Your task to perform on an android device: Go to Reddit.com Image 0: 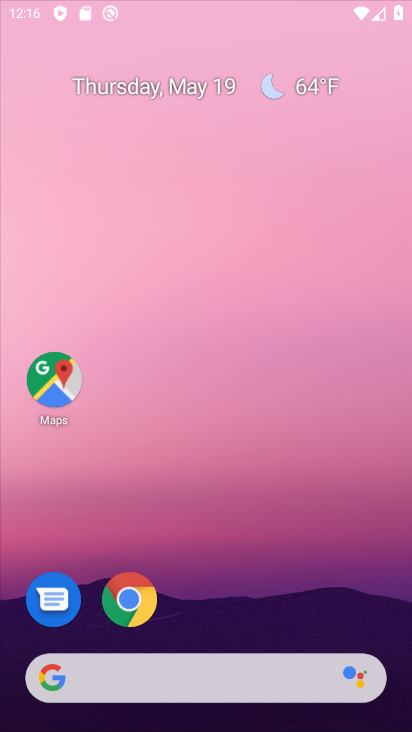
Step 0: click (197, 58)
Your task to perform on an android device: Go to Reddit.com Image 1: 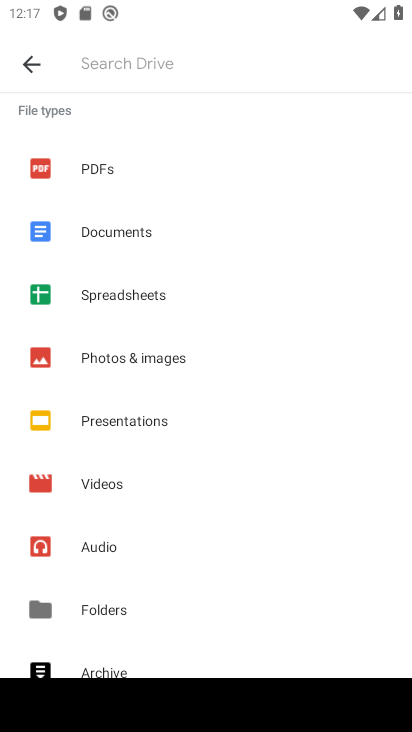
Step 1: press home button
Your task to perform on an android device: Go to Reddit.com Image 2: 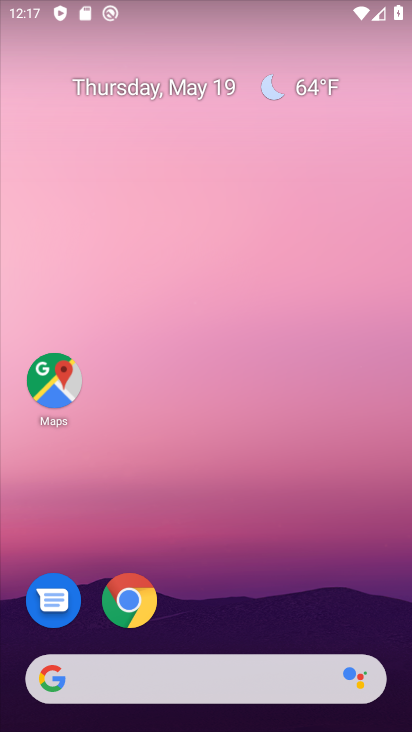
Step 2: click (137, 614)
Your task to perform on an android device: Go to Reddit.com Image 3: 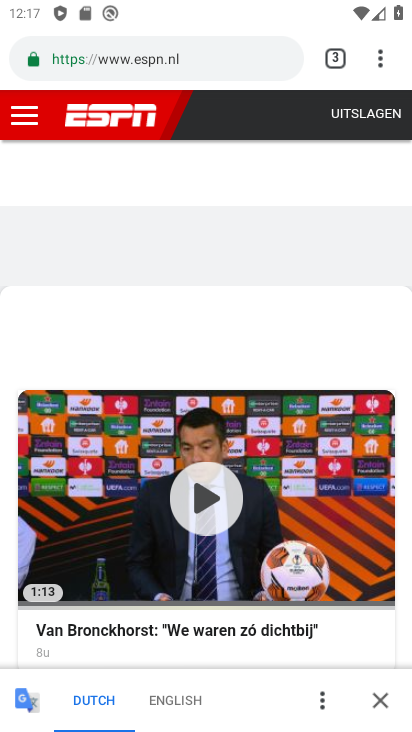
Step 3: click (335, 63)
Your task to perform on an android device: Go to Reddit.com Image 4: 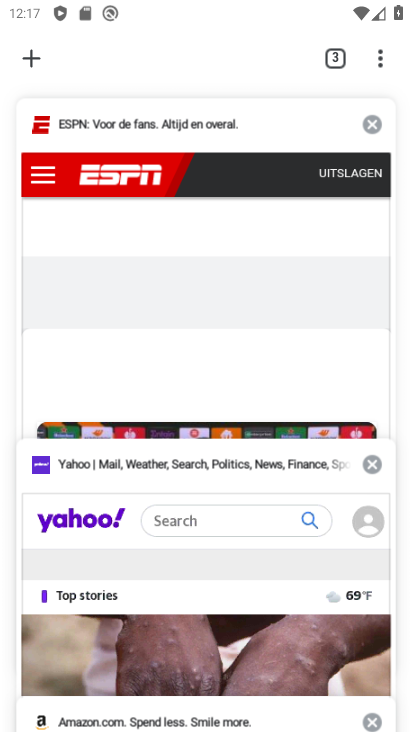
Step 4: click (28, 47)
Your task to perform on an android device: Go to Reddit.com Image 5: 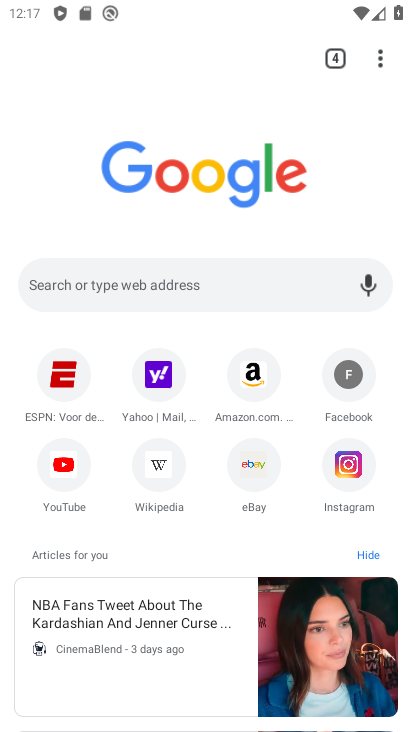
Step 5: click (235, 281)
Your task to perform on an android device: Go to Reddit.com Image 6: 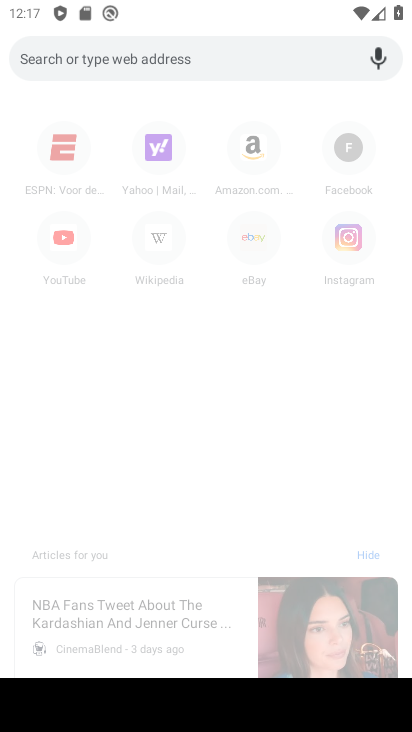
Step 6: type "reddit"
Your task to perform on an android device: Go to Reddit.com Image 7: 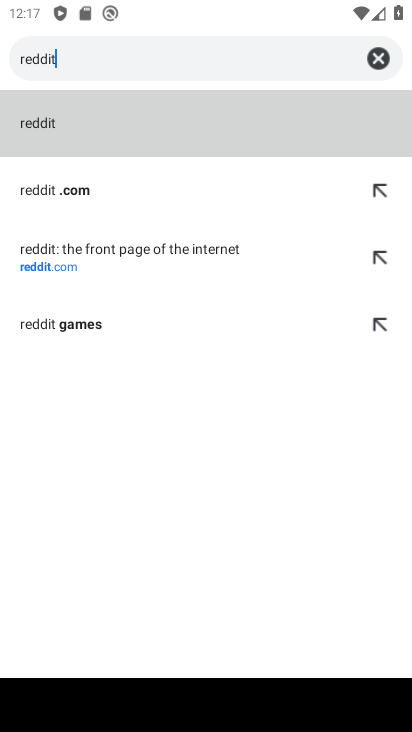
Step 7: click (56, 240)
Your task to perform on an android device: Go to Reddit.com Image 8: 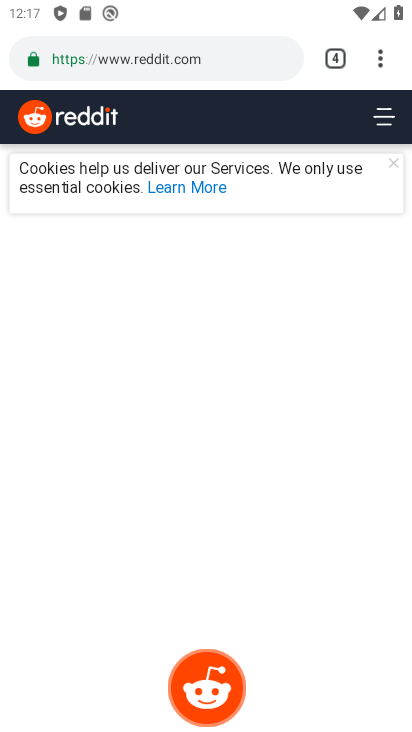
Step 8: task complete